Your task to perform on an android device: Search for a 3d printer on aliexpress Image 0: 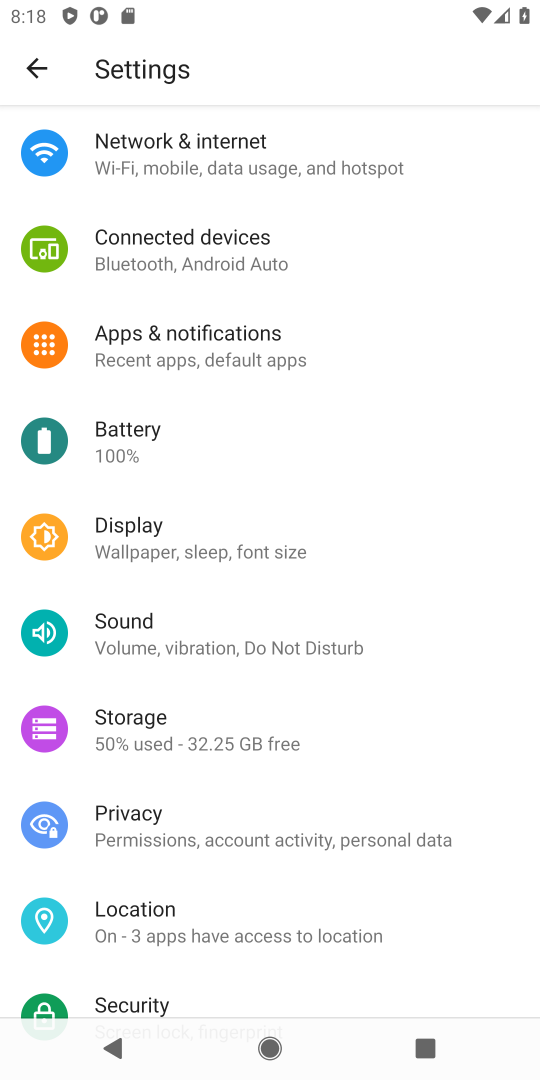
Step 0: press home button
Your task to perform on an android device: Search for a 3d printer on aliexpress Image 1: 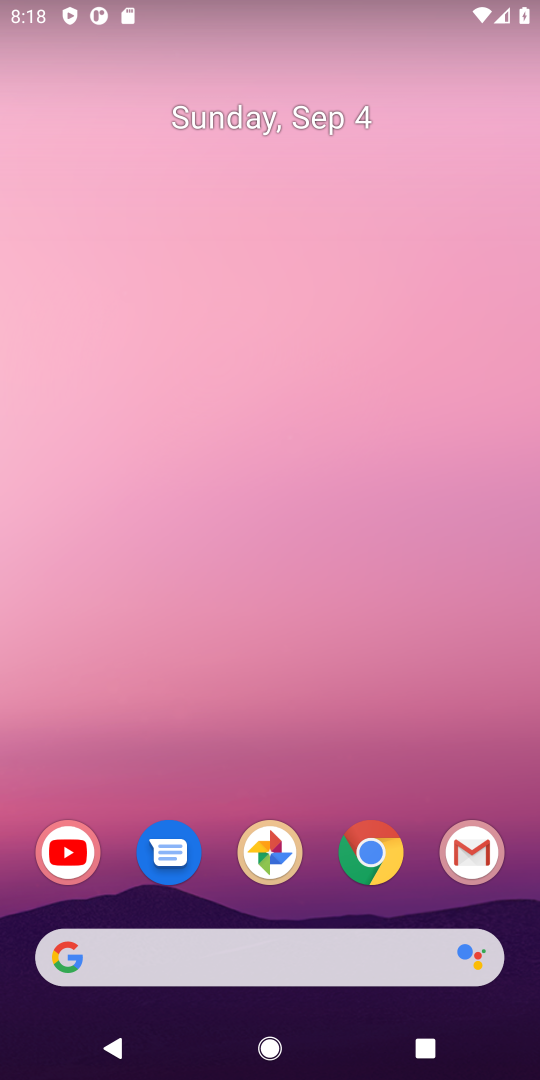
Step 1: drag from (414, 267) to (384, 47)
Your task to perform on an android device: Search for a 3d printer on aliexpress Image 2: 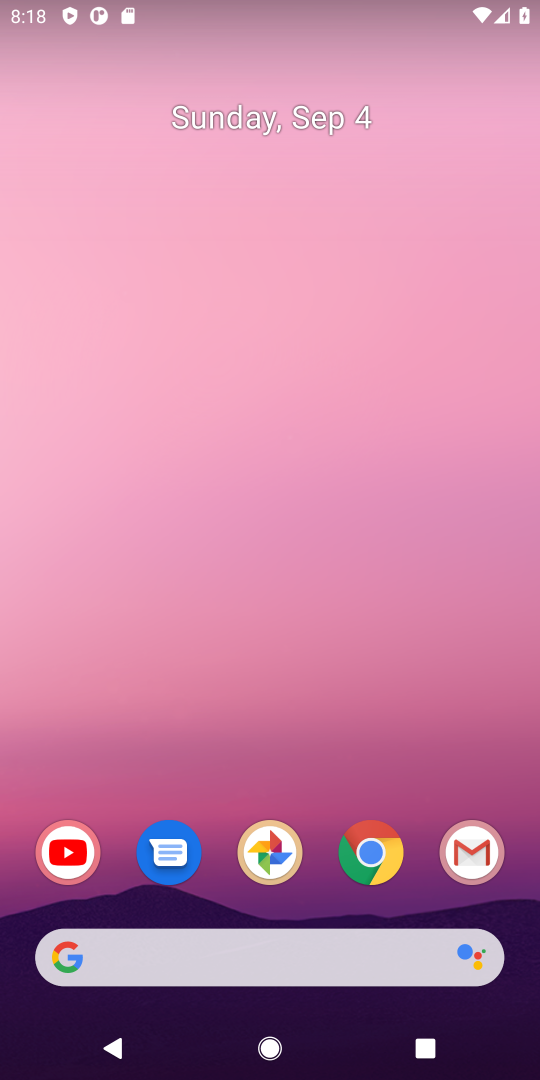
Step 2: drag from (419, 802) to (142, 20)
Your task to perform on an android device: Search for a 3d printer on aliexpress Image 3: 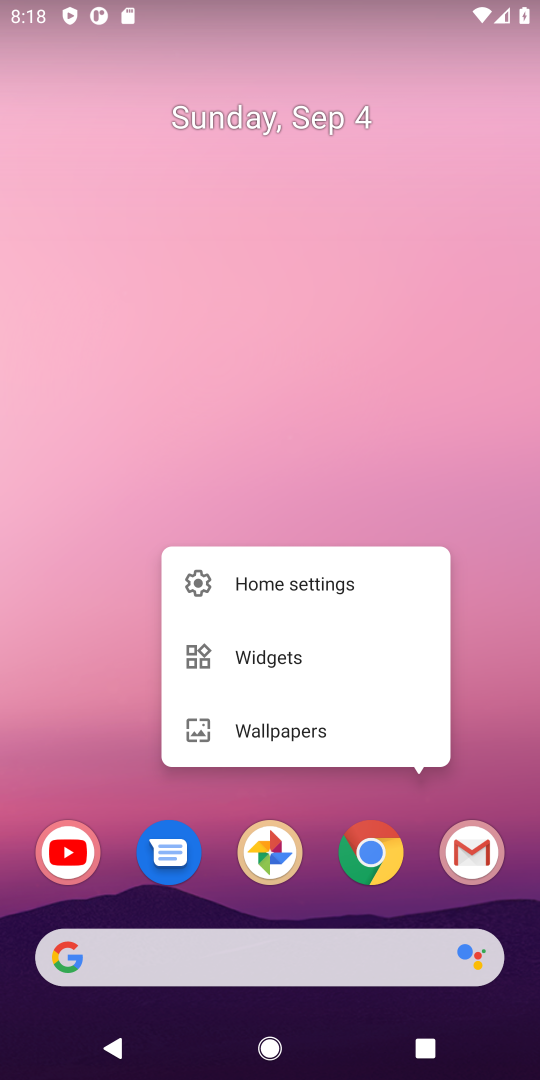
Step 3: click (354, 456)
Your task to perform on an android device: Search for a 3d printer on aliexpress Image 4: 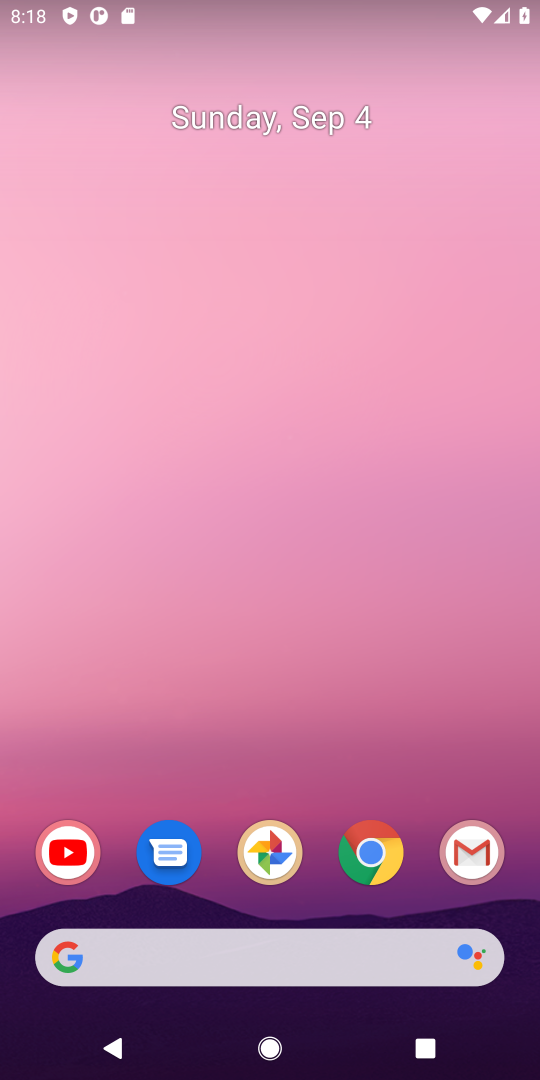
Step 4: drag from (411, 816) to (161, 0)
Your task to perform on an android device: Search for a 3d printer on aliexpress Image 5: 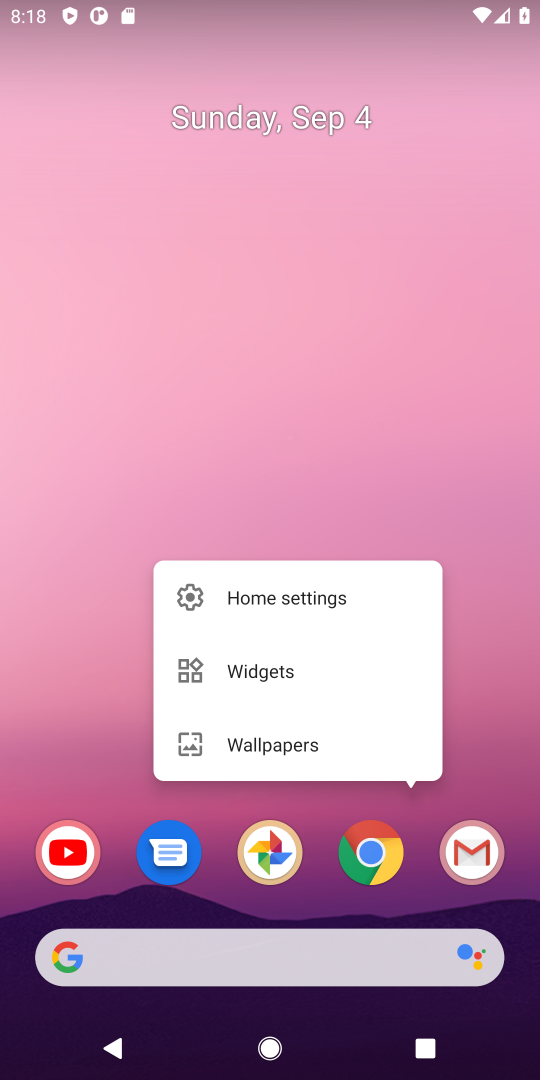
Step 5: click (330, 410)
Your task to perform on an android device: Search for a 3d printer on aliexpress Image 6: 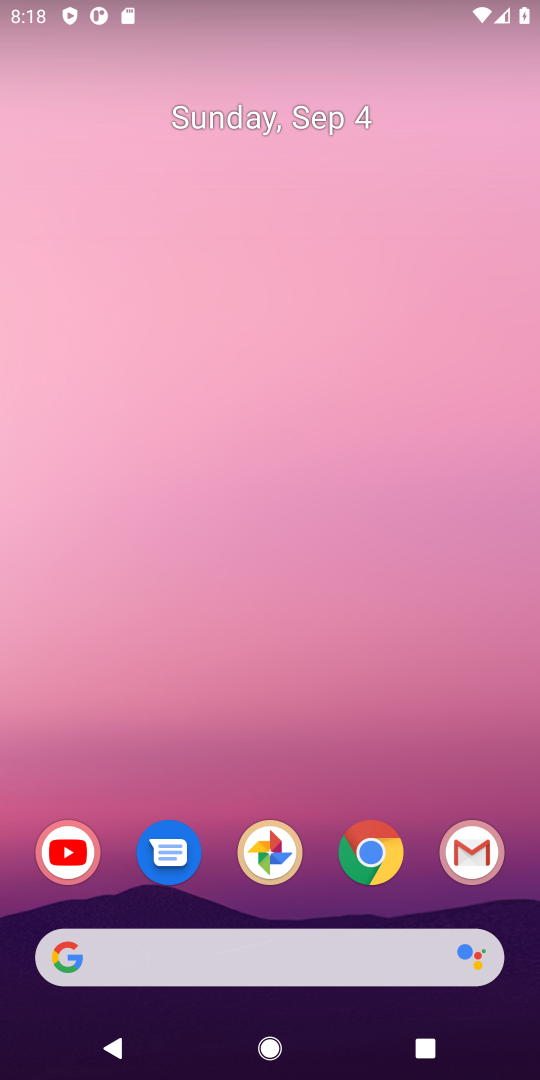
Step 6: drag from (267, 308) to (92, 2)
Your task to perform on an android device: Search for a 3d printer on aliexpress Image 7: 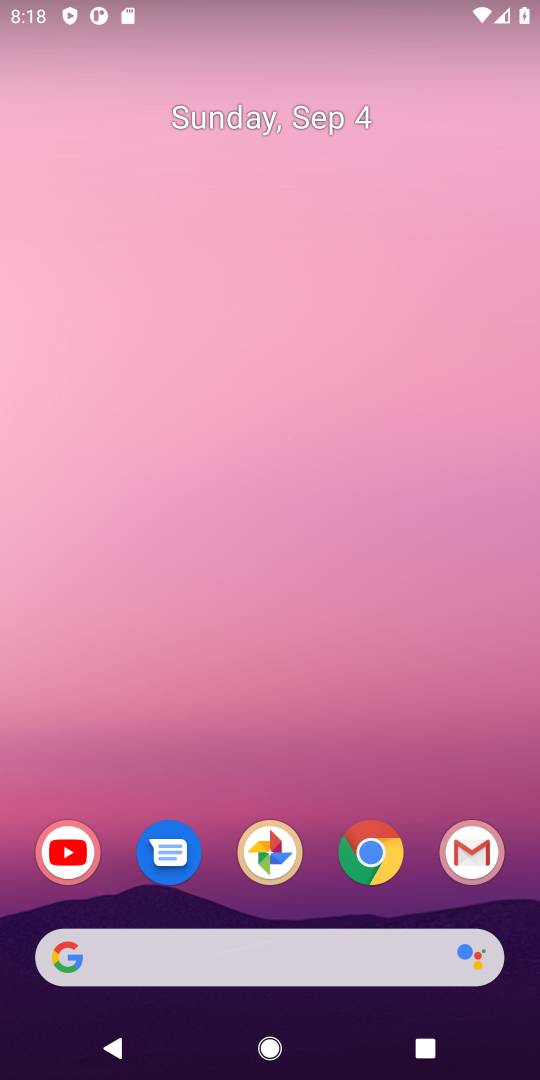
Step 7: drag from (419, 807) to (103, 19)
Your task to perform on an android device: Search for a 3d printer on aliexpress Image 8: 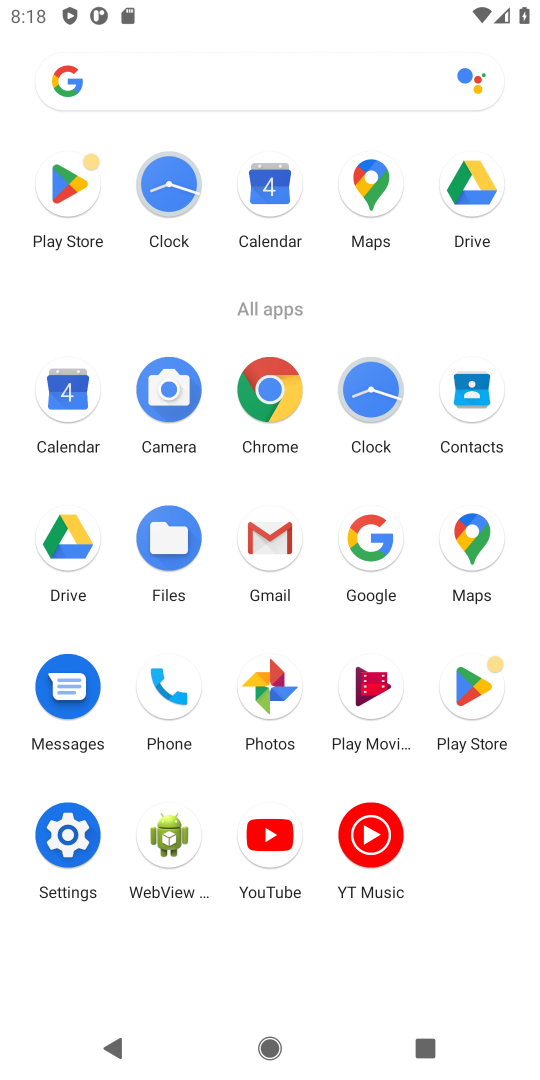
Step 8: click (364, 536)
Your task to perform on an android device: Search for a 3d printer on aliexpress Image 9: 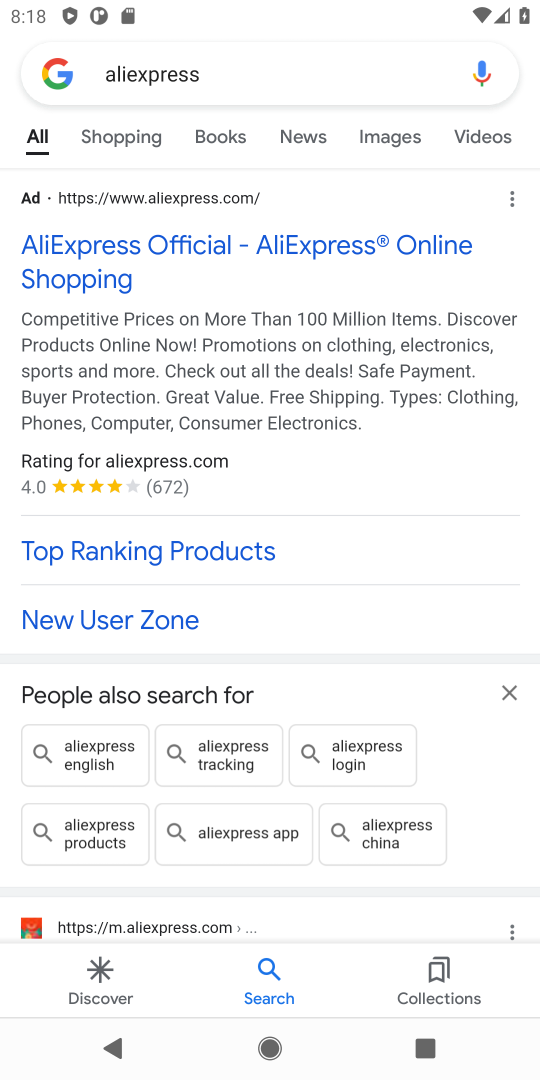
Step 9: click (202, 248)
Your task to perform on an android device: Search for a 3d printer on aliexpress Image 10: 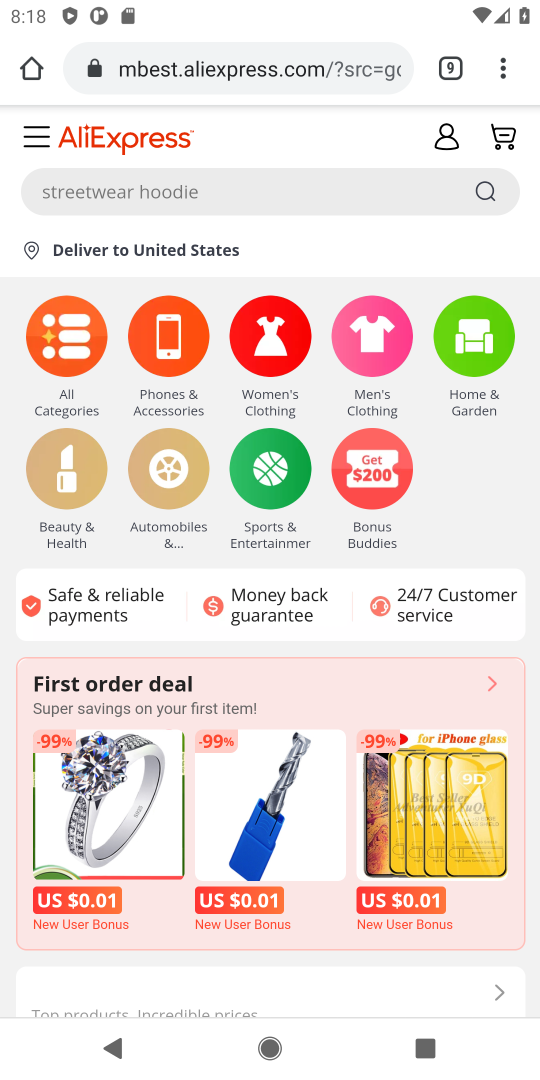
Step 10: click (163, 199)
Your task to perform on an android device: Search for a 3d printer on aliexpress Image 11: 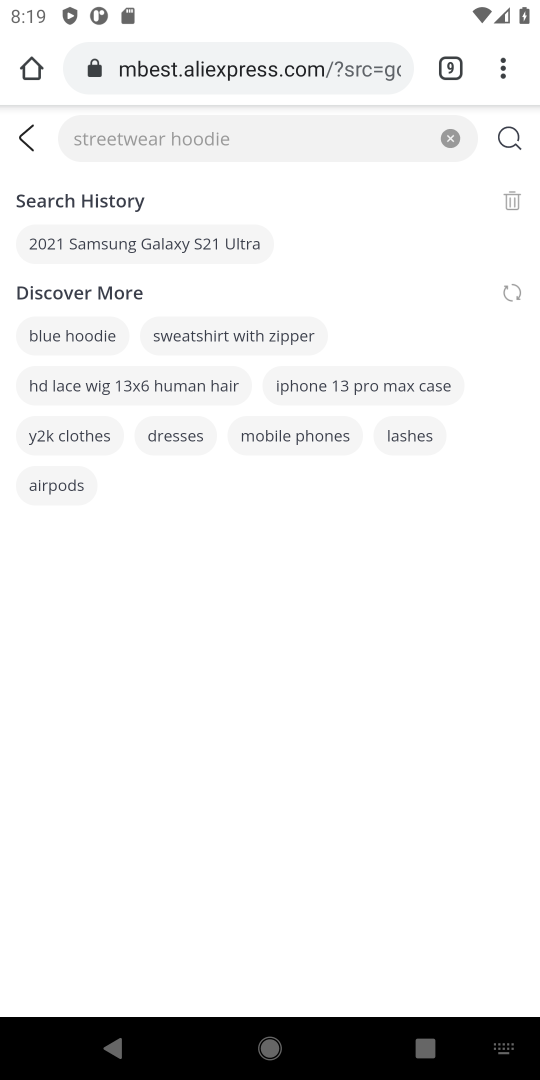
Step 11: type "3d printer"
Your task to perform on an android device: Search for a 3d printer on aliexpress Image 12: 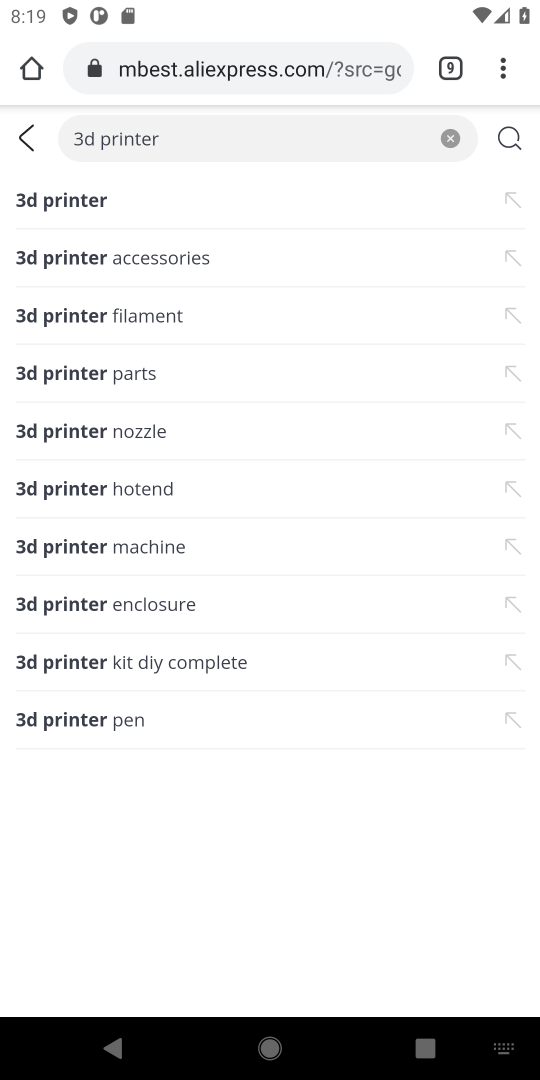
Step 12: click (114, 215)
Your task to perform on an android device: Search for a 3d printer on aliexpress Image 13: 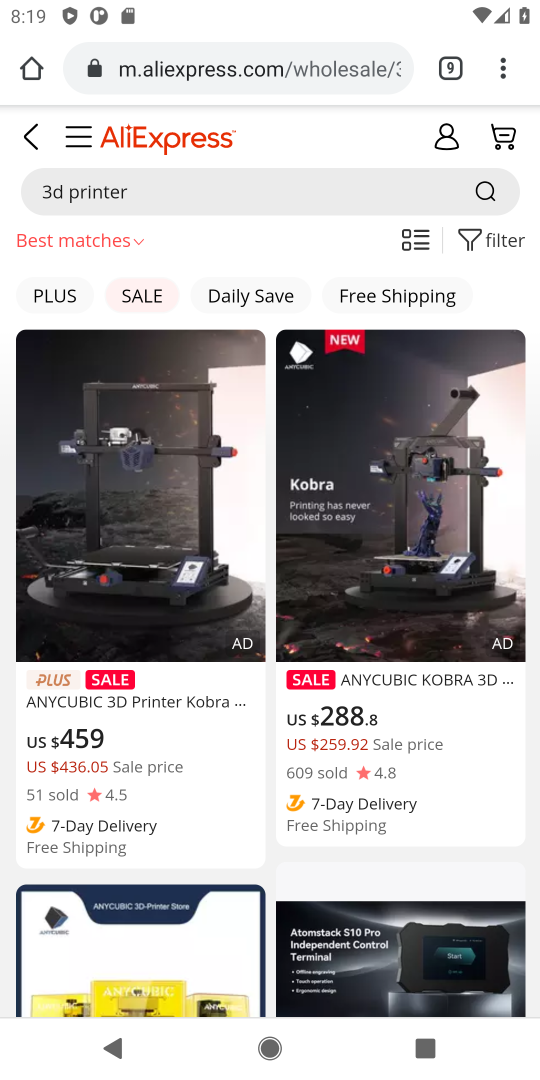
Step 13: task complete